Your task to perform on an android device: Go to internet settings Image 0: 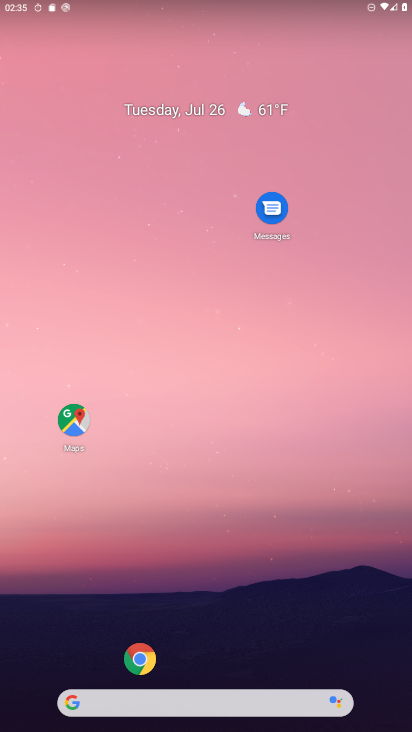
Step 0: drag from (59, 670) to (148, 249)
Your task to perform on an android device: Go to internet settings Image 1: 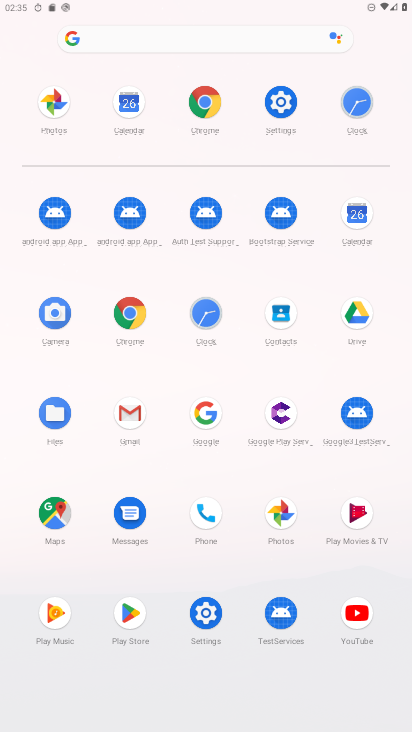
Step 1: click (190, 621)
Your task to perform on an android device: Go to internet settings Image 2: 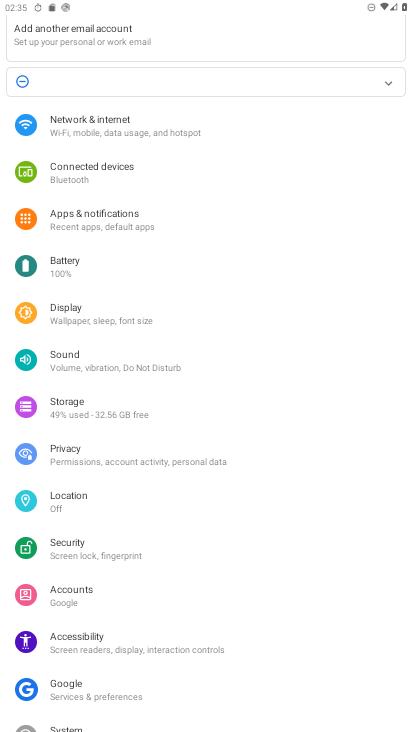
Step 2: click (88, 130)
Your task to perform on an android device: Go to internet settings Image 3: 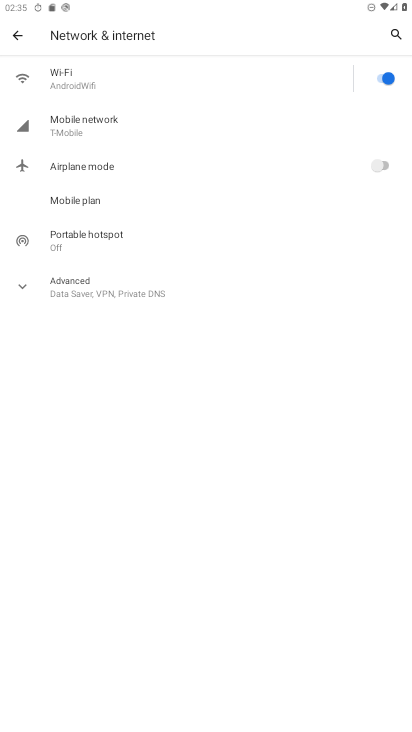
Step 3: task complete